Your task to perform on an android device: delete location history Image 0: 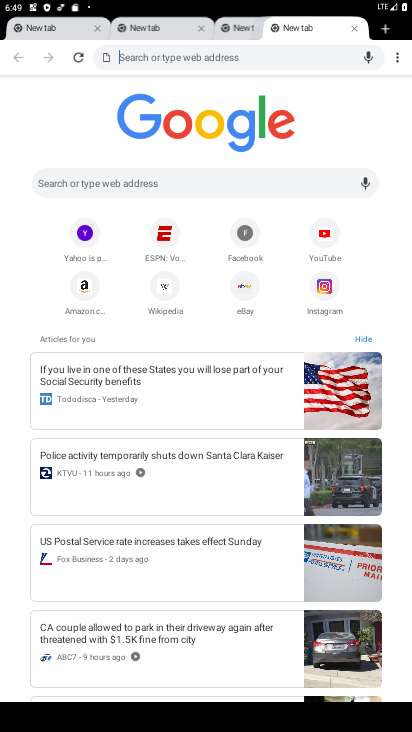
Step 0: press home button
Your task to perform on an android device: delete location history Image 1: 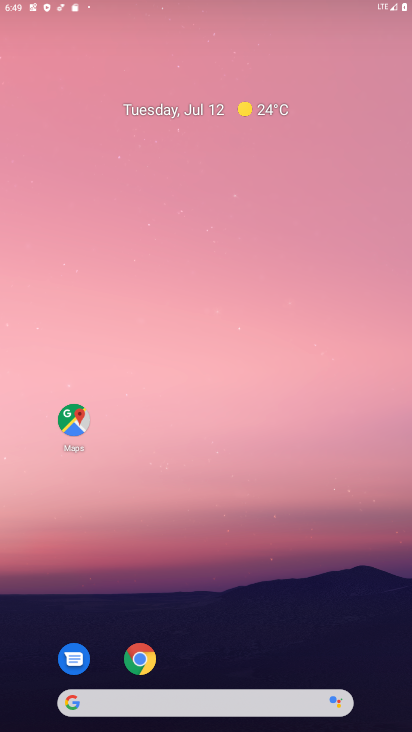
Step 1: drag from (358, 642) to (257, 38)
Your task to perform on an android device: delete location history Image 2: 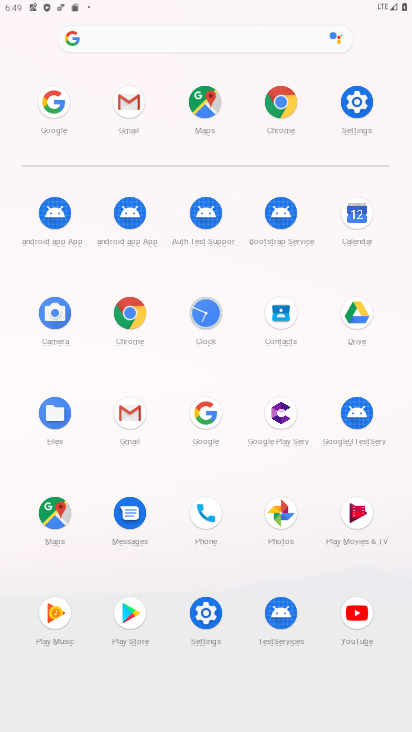
Step 2: click (357, 99)
Your task to perform on an android device: delete location history Image 3: 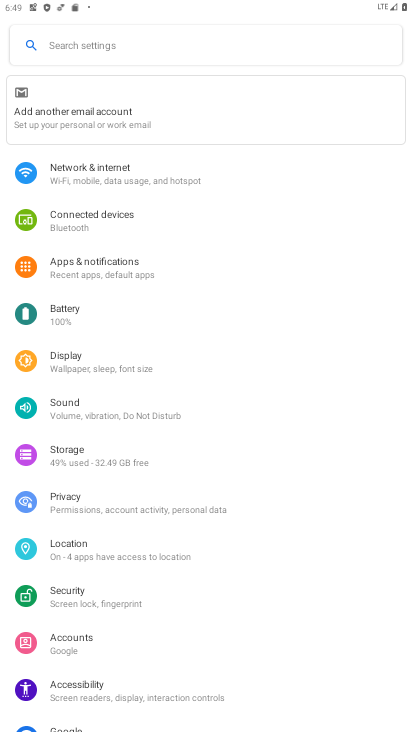
Step 3: click (47, 543)
Your task to perform on an android device: delete location history Image 4: 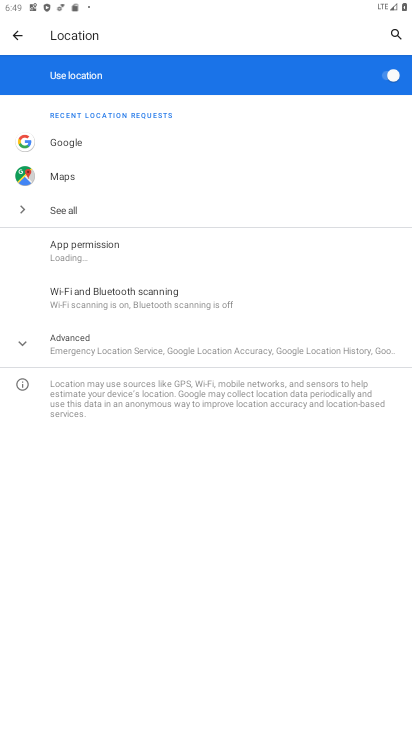
Step 4: click (42, 336)
Your task to perform on an android device: delete location history Image 5: 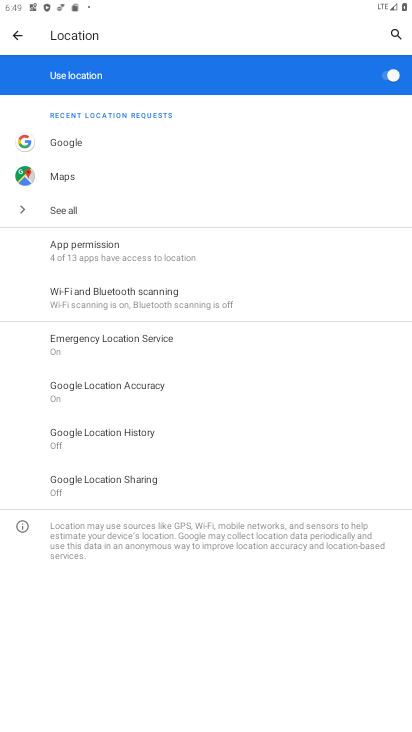
Step 5: click (82, 435)
Your task to perform on an android device: delete location history Image 6: 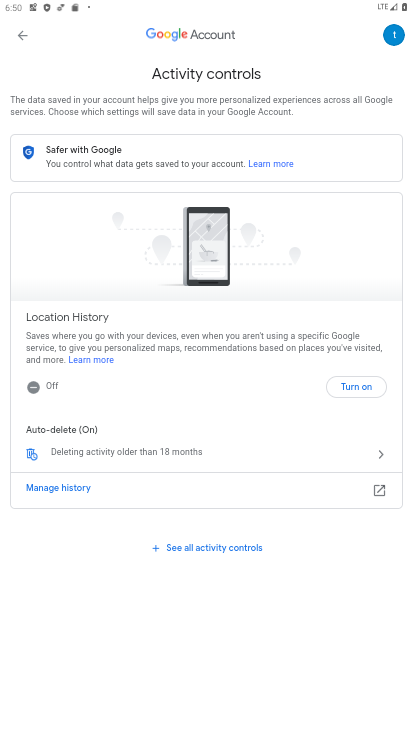
Step 6: click (130, 452)
Your task to perform on an android device: delete location history Image 7: 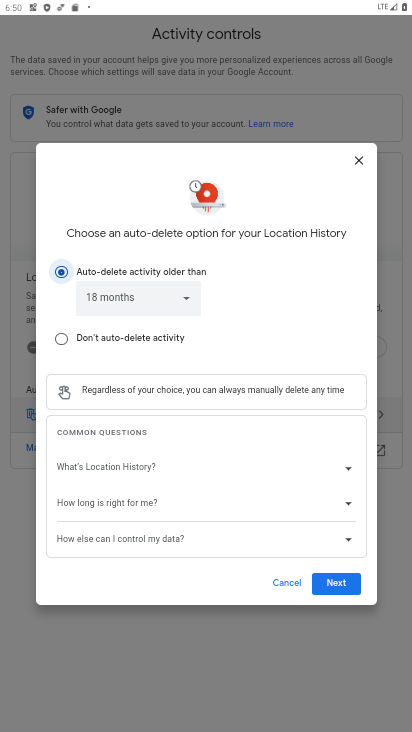
Step 7: click (341, 581)
Your task to perform on an android device: delete location history Image 8: 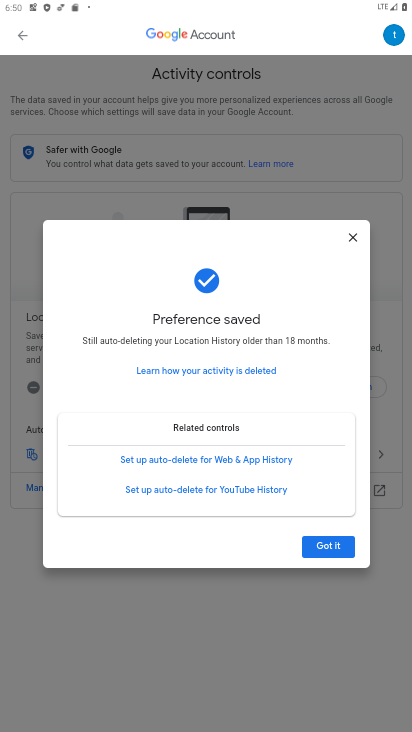
Step 8: click (327, 554)
Your task to perform on an android device: delete location history Image 9: 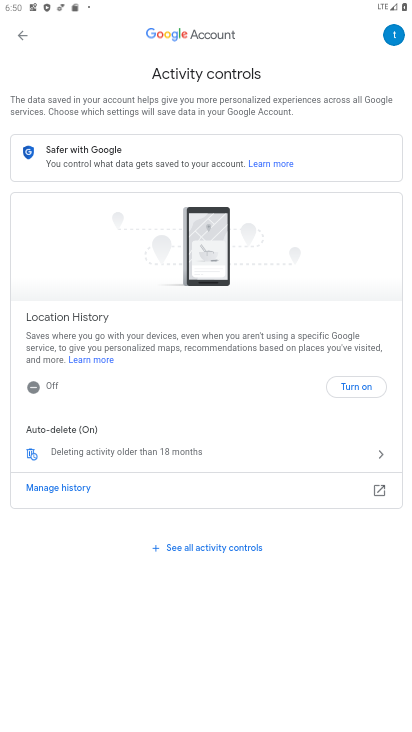
Step 9: task complete